Your task to perform on an android device: find which apps use the phone's location Image 0: 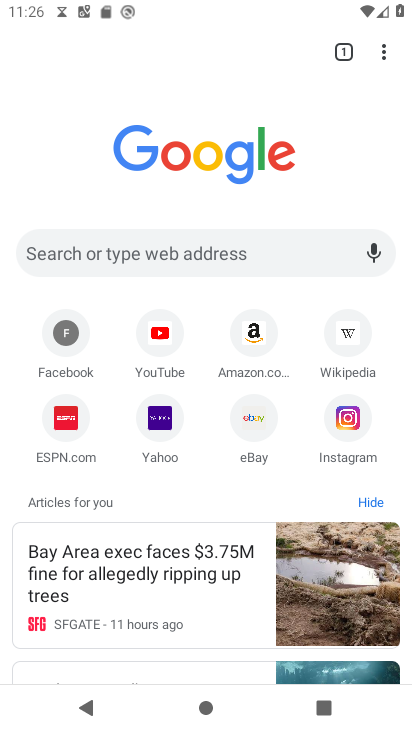
Step 0: press home button
Your task to perform on an android device: find which apps use the phone's location Image 1: 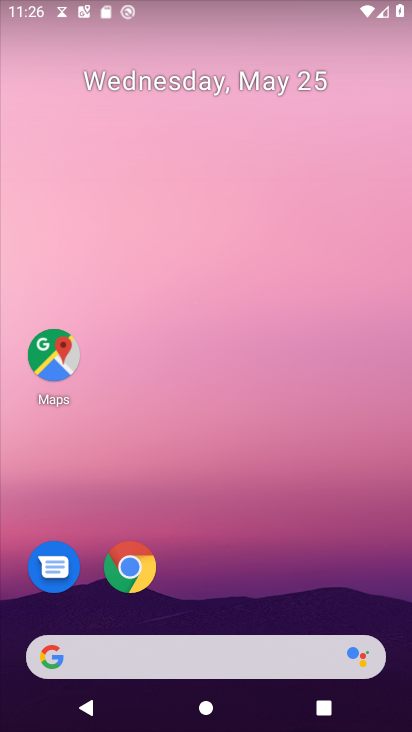
Step 1: drag from (248, 519) to (241, 154)
Your task to perform on an android device: find which apps use the phone's location Image 2: 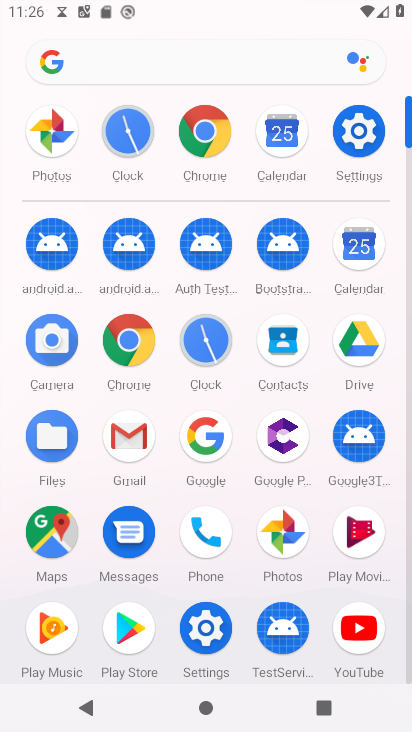
Step 2: click (361, 138)
Your task to perform on an android device: find which apps use the phone's location Image 3: 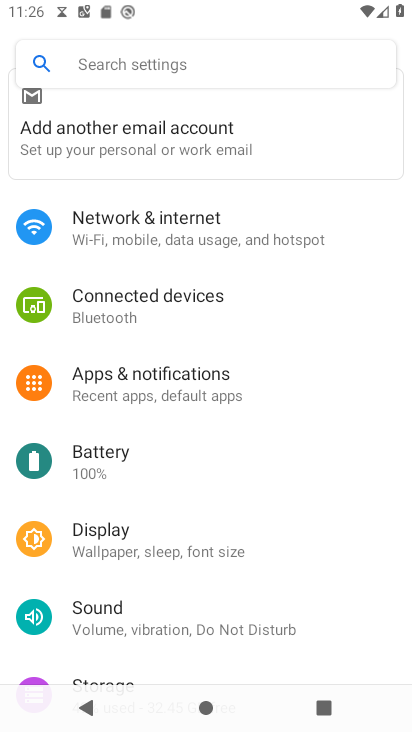
Step 3: drag from (211, 588) to (180, 222)
Your task to perform on an android device: find which apps use the phone's location Image 4: 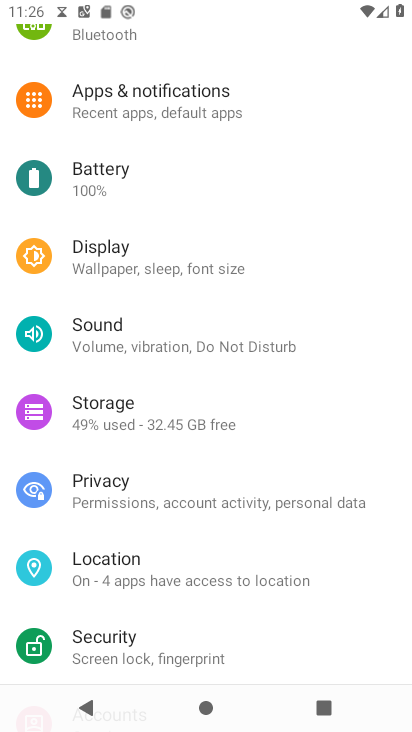
Step 4: drag from (220, 429) to (220, 170)
Your task to perform on an android device: find which apps use the phone's location Image 5: 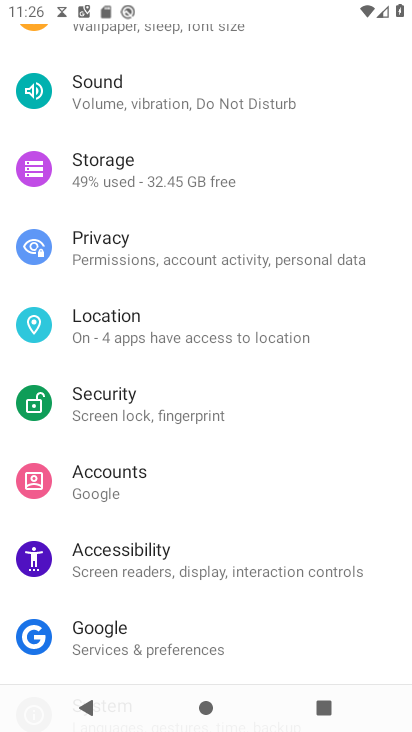
Step 5: click (208, 330)
Your task to perform on an android device: find which apps use the phone's location Image 6: 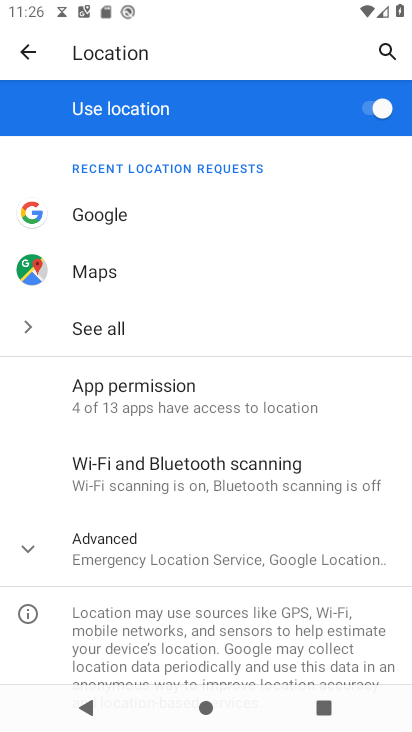
Step 6: click (103, 553)
Your task to perform on an android device: find which apps use the phone's location Image 7: 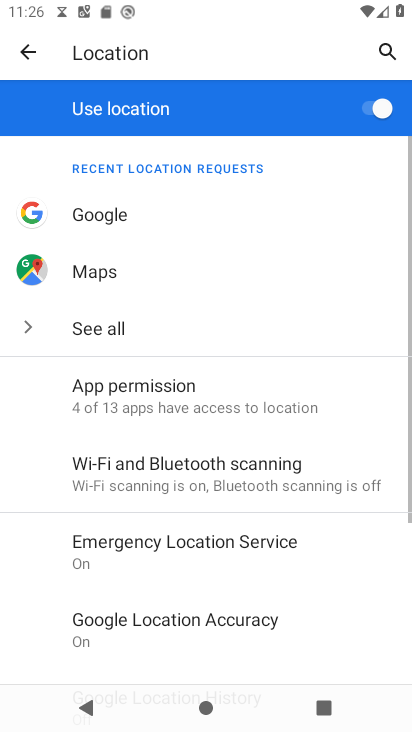
Step 7: task complete